Your task to perform on an android device: see creations saved in the google photos Image 0: 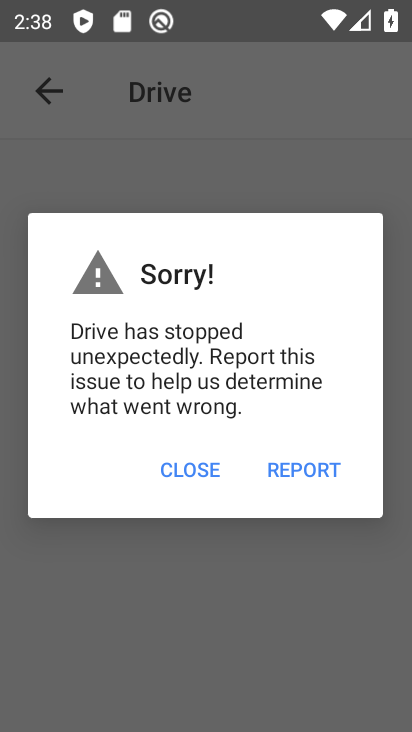
Step 0: press home button
Your task to perform on an android device: see creations saved in the google photos Image 1: 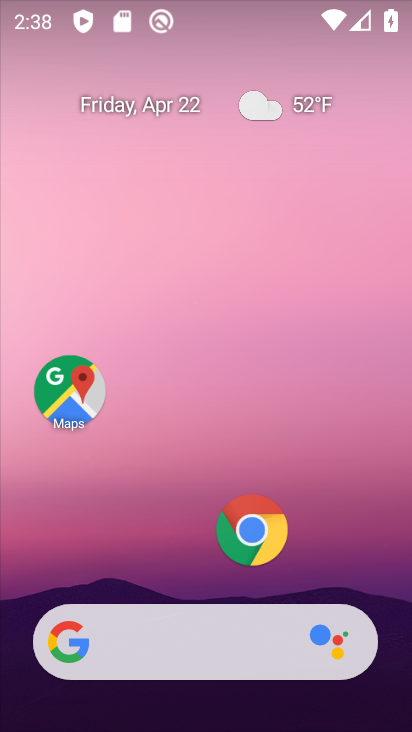
Step 1: drag from (173, 600) to (135, 48)
Your task to perform on an android device: see creations saved in the google photos Image 2: 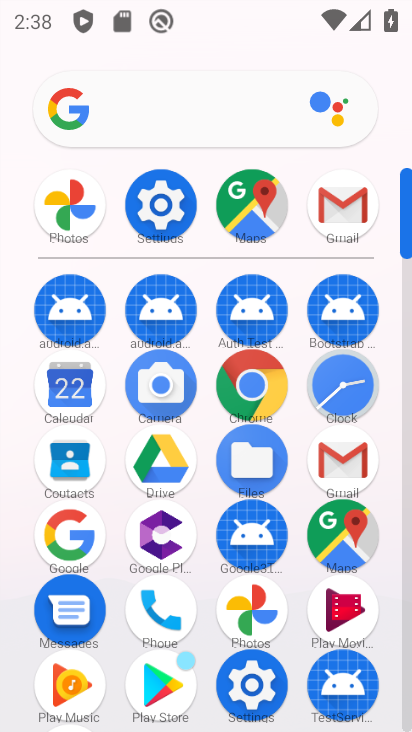
Step 2: click (268, 602)
Your task to perform on an android device: see creations saved in the google photos Image 3: 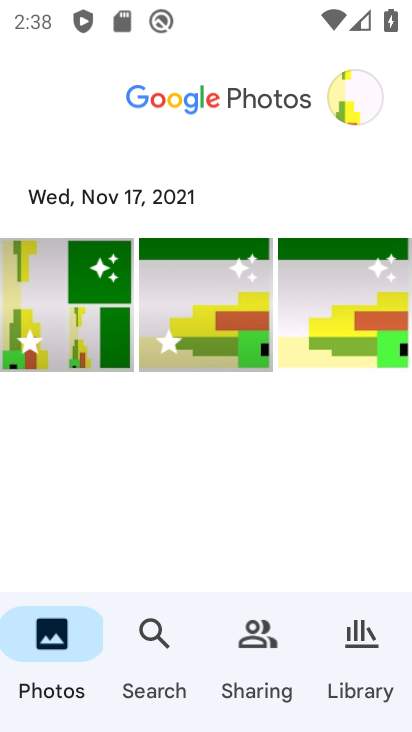
Step 3: click (356, 656)
Your task to perform on an android device: see creations saved in the google photos Image 4: 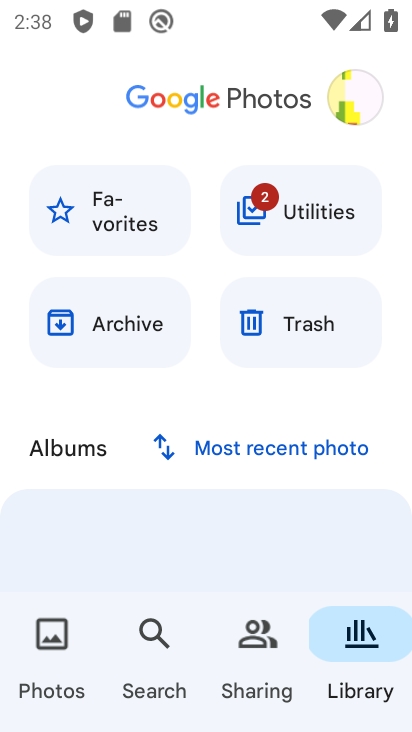
Step 4: task complete